Your task to perform on an android device: Toggle the flashlight Image 0: 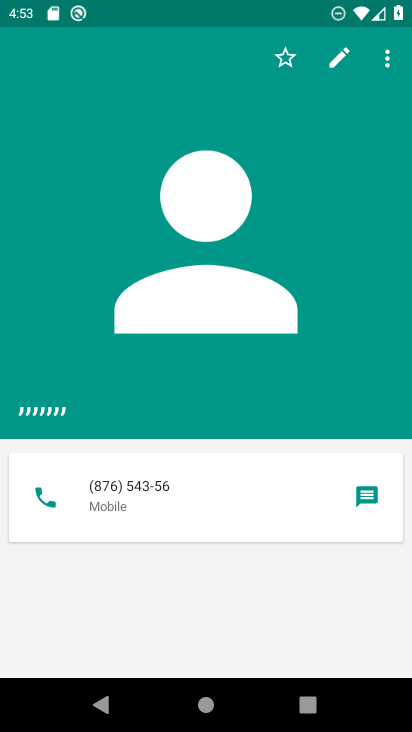
Step 0: press home button
Your task to perform on an android device: Toggle the flashlight Image 1: 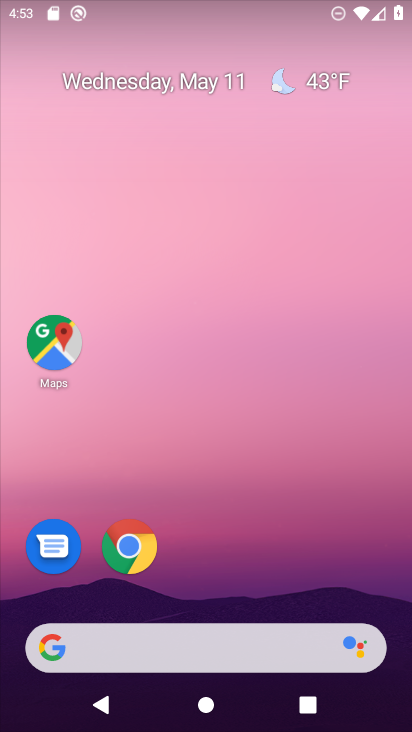
Step 1: drag from (230, 10) to (216, 406)
Your task to perform on an android device: Toggle the flashlight Image 2: 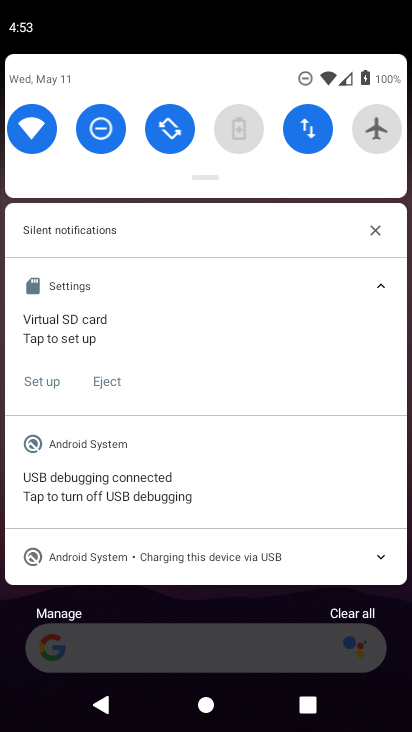
Step 2: drag from (202, 137) to (213, 536)
Your task to perform on an android device: Toggle the flashlight Image 3: 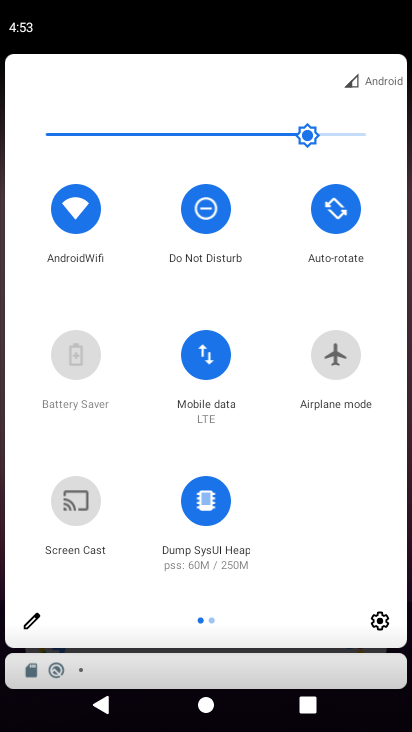
Step 3: drag from (351, 445) to (0, 505)
Your task to perform on an android device: Toggle the flashlight Image 4: 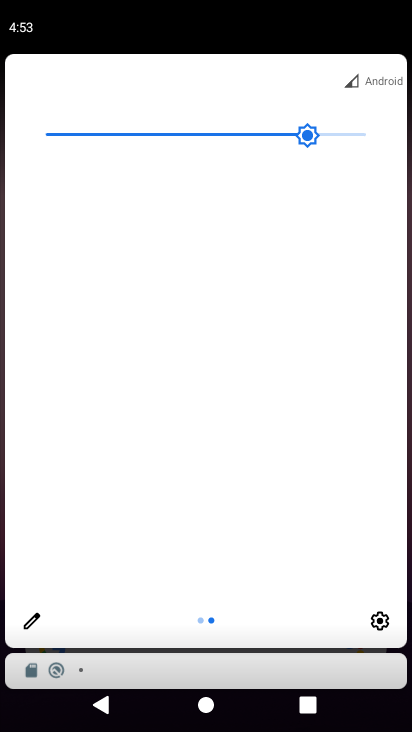
Step 4: click (31, 622)
Your task to perform on an android device: Toggle the flashlight Image 5: 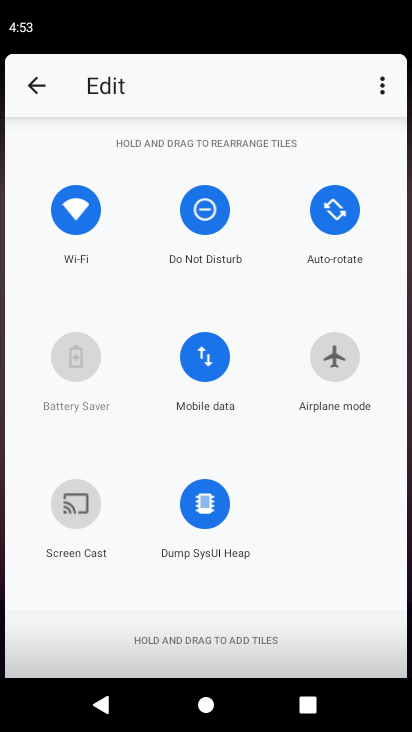
Step 5: task complete